Your task to perform on an android device: Open Google Maps Image 0: 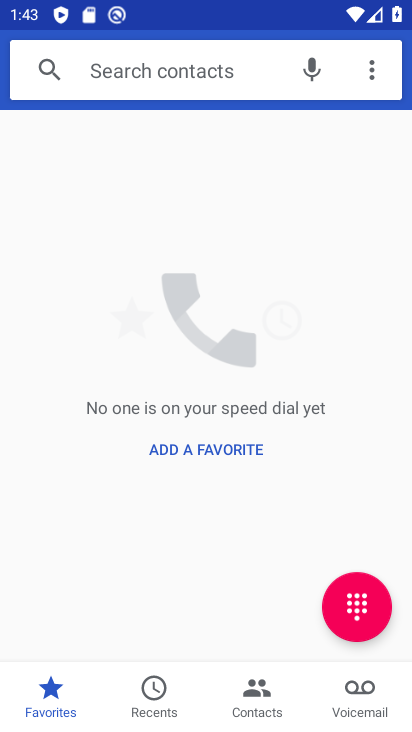
Step 0: press home button
Your task to perform on an android device: Open Google Maps Image 1: 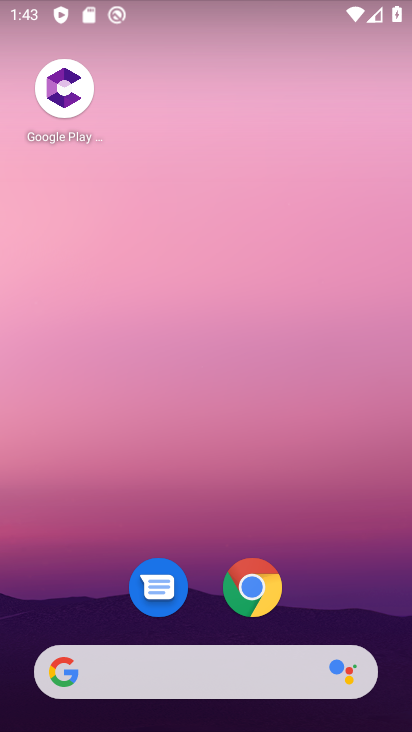
Step 1: drag from (200, 637) to (246, 190)
Your task to perform on an android device: Open Google Maps Image 2: 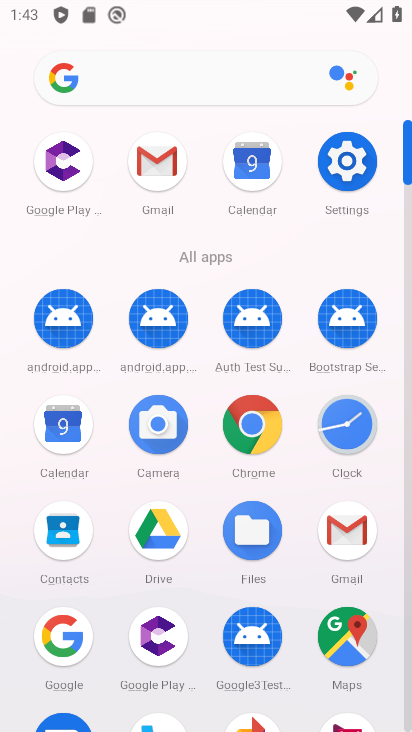
Step 2: click (371, 647)
Your task to perform on an android device: Open Google Maps Image 3: 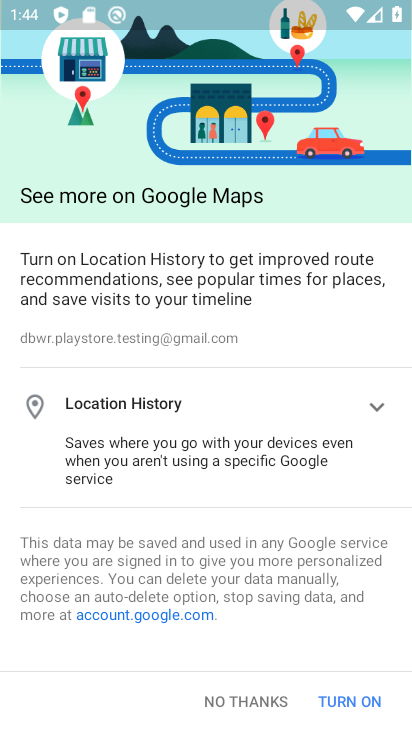
Step 3: click (354, 706)
Your task to perform on an android device: Open Google Maps Image 4: 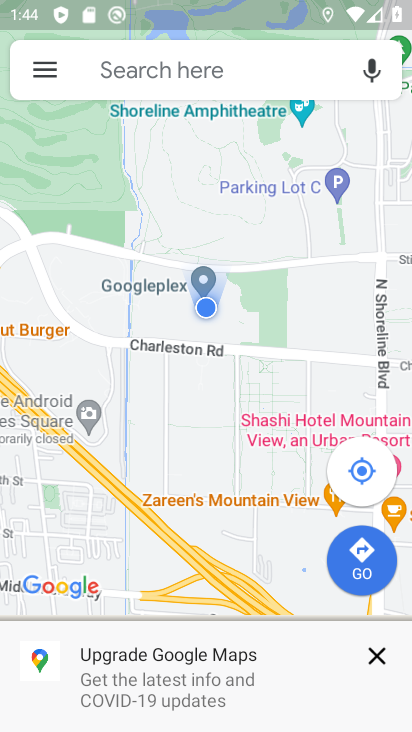
Step 4: task complete